Your task to perform on an android device: open app "McDonald's" Image 0: 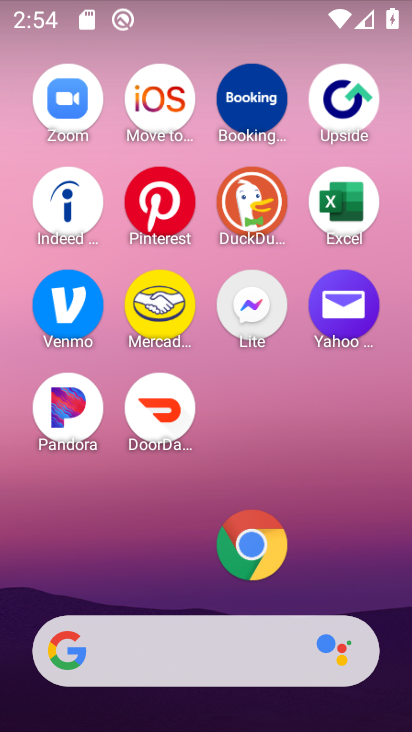
Step 0: drag from (176, 470) to (226, 3)
Your task to perform on an android device: open app "McDonald's" Image 1: 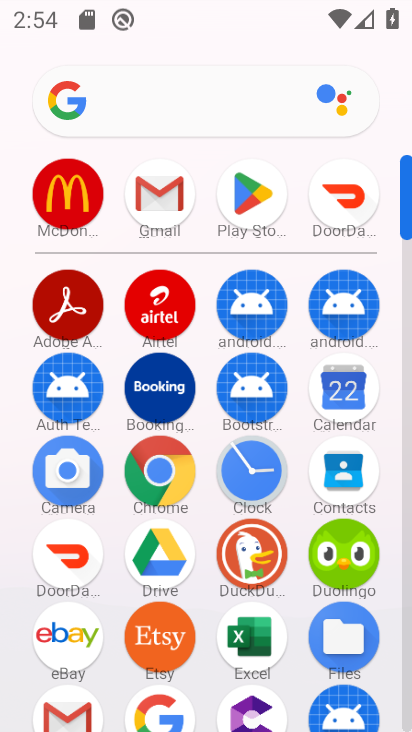
Step 1: click (259, 198)
Your task to perform on an android device: open app "McDonald's" Image 2: 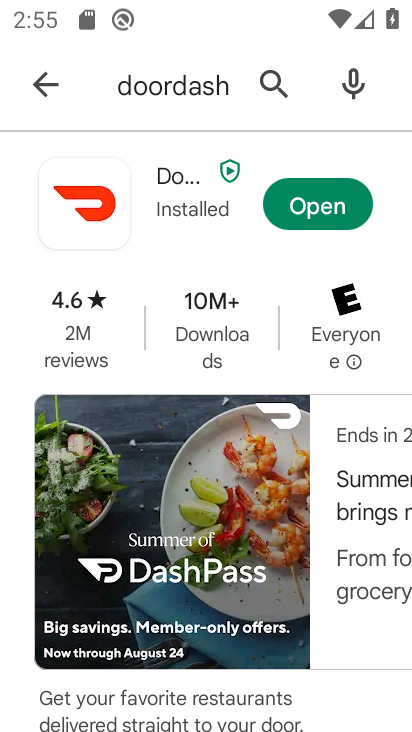
Step 2: click (279, 82)
Your task to perform on an android device: open app "McDonald's" Image 3: 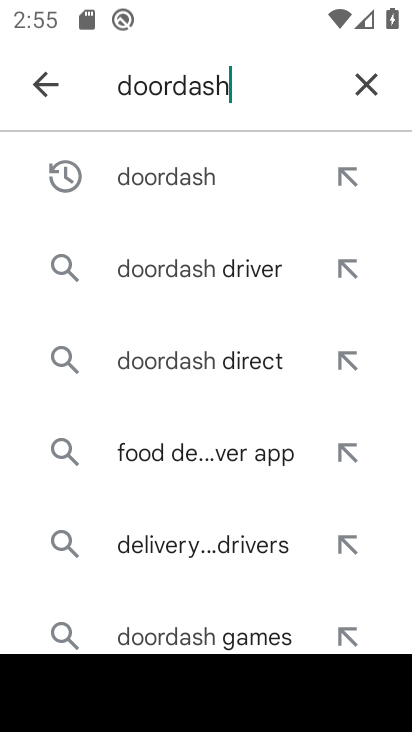
Step 3: click (376, 92)
Your task to perform on an android device: open app "McDonald's" Image 4: 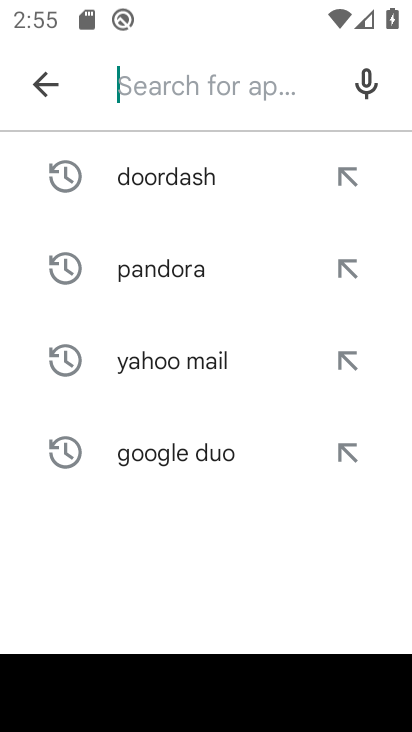
Step 4: click (204, 83)
Your task to perform on an android device: open app "McDonald's" Image 5: 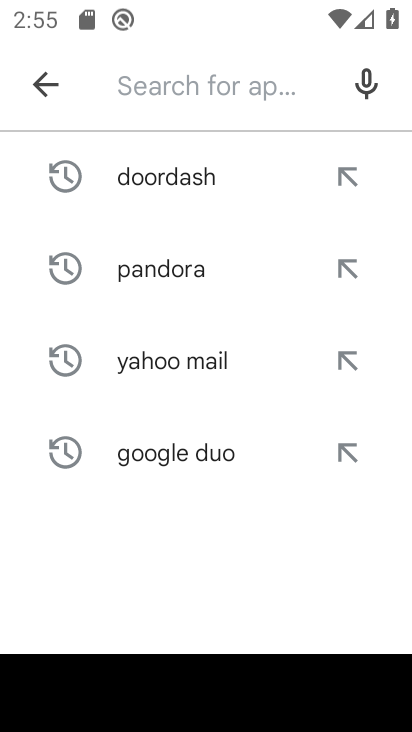
Step 5: click (161, 81)
Your task to perform on an android device: open app "McDonald's" Image 6: 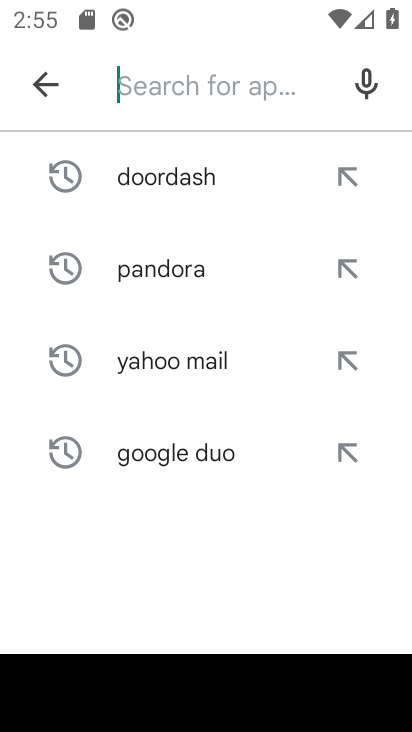
Step 6: type "McDonald's"
Your task to perform on an android device: open app "McDonald's" Image 7: 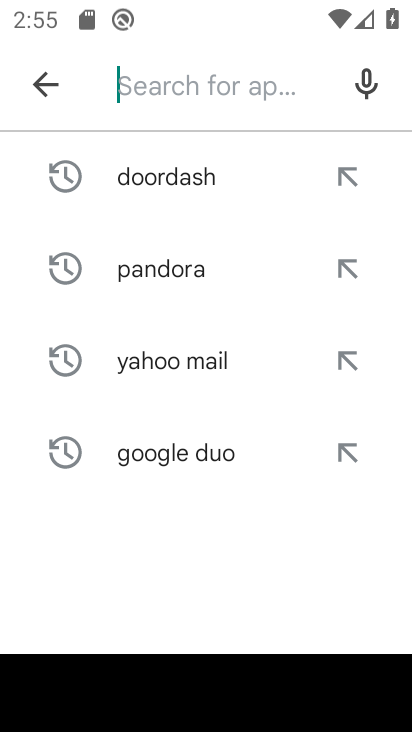
Step 7: click (155, 551)
Your task to perform on an android device: open app "McDonald's" Image 8: 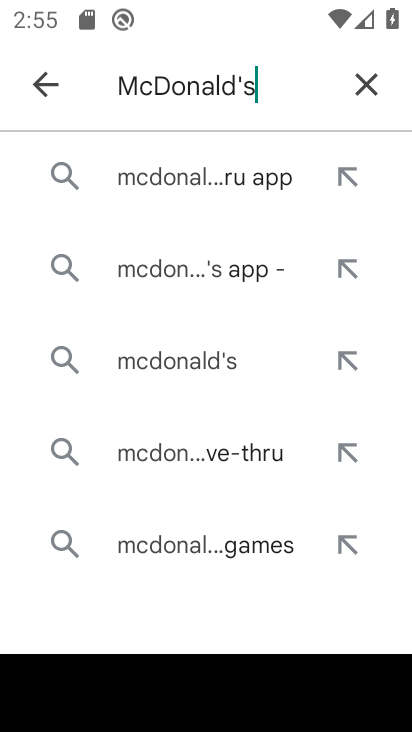
Step 8: click (171, 256)
Your task to perform on an android device: open app "McDonald's" Image 9: 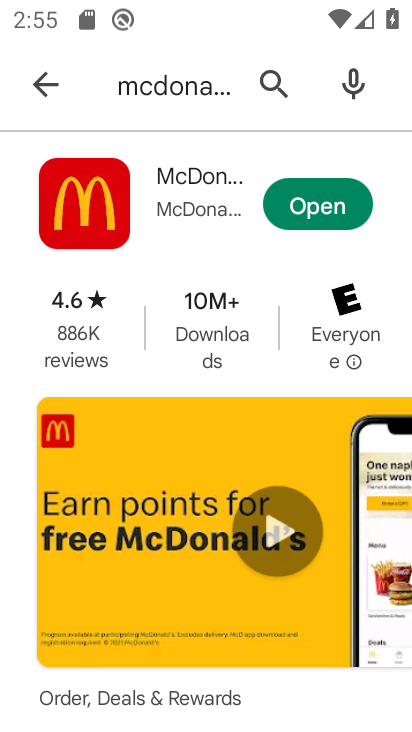
Step 9: click (291, 210)
Your task to perform on an android device: open app "McDonald's" Image 10: 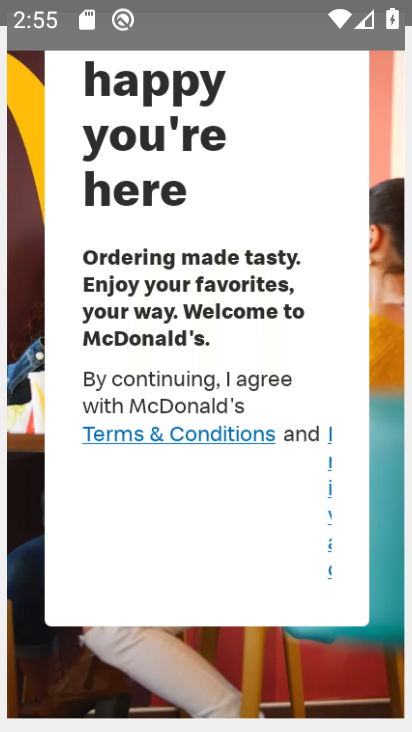
Step 10: task complete